Your task to perform on an android device: turn off data saver in the chrome app Image 0: 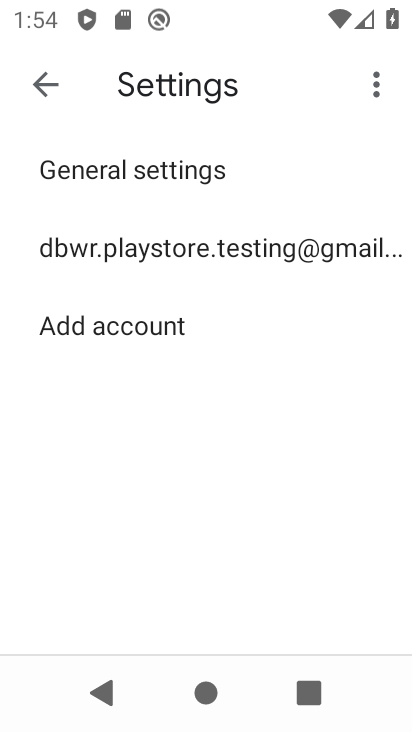
Step 0: press home button
Your task to perform on an android device: turn off data saver in the chrome app Image 1: 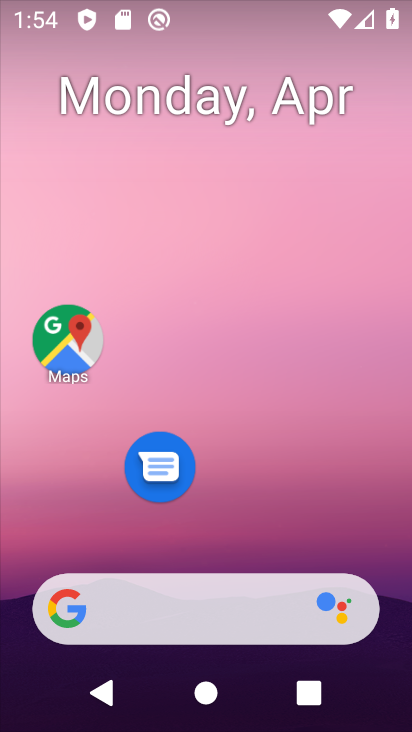
Step 1: drag from (289, 545) to (293, 13)
Your task to perform on an android device: turn off data saver in the chrome app Image 2: 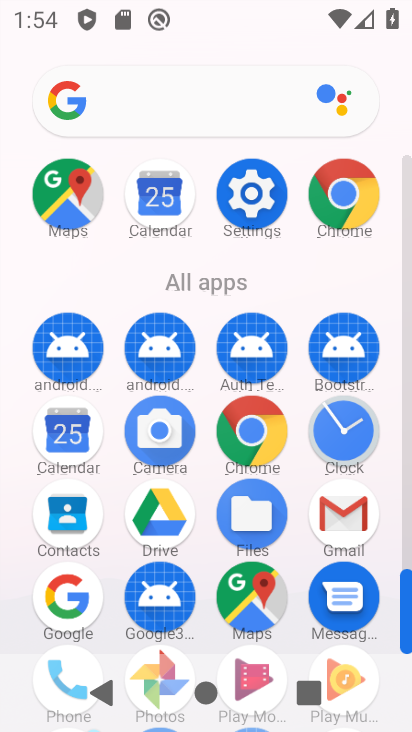
Step 2: click (347, 195)
Your task to perform on an android device: turn off data saver in the chrome app Image 3: 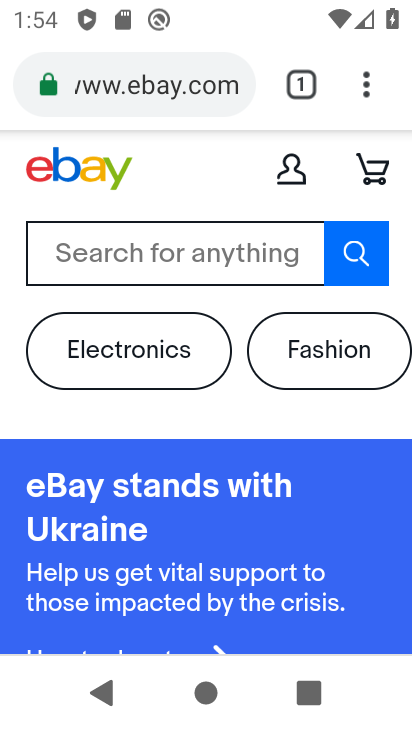
Step 3: click (377, 78)
Your task to perform on an android device: turn off data saver in the chrome app Image 4: 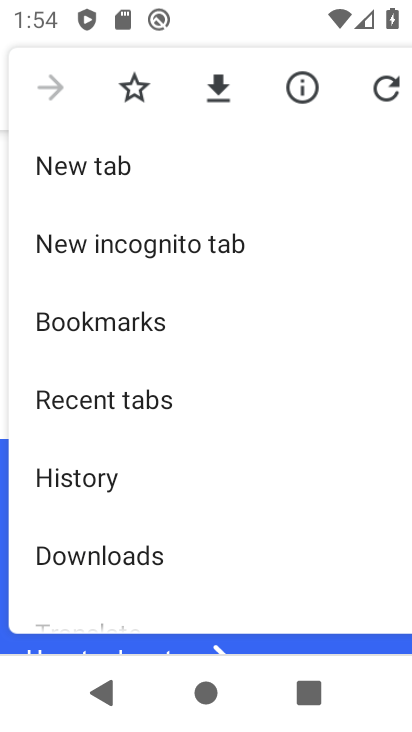
Step 4: drag from (167, 528) to (160, 243)
Your task to perform on an android device: turn off data saver in the chrome app Image 5: 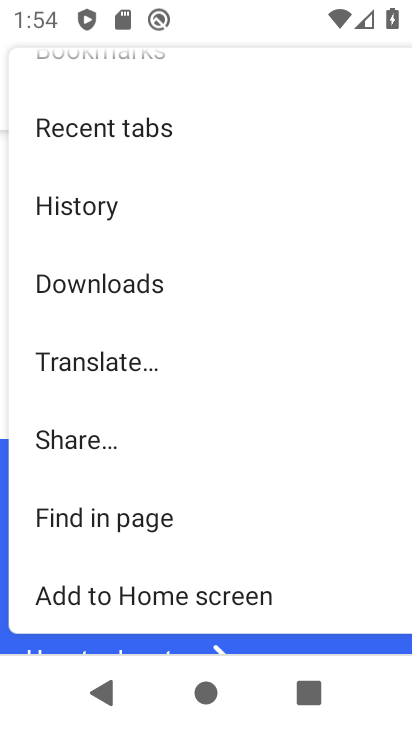
Step 5: drag from (175, 479) to (172, 262)
Your task to perform on an android device: turn off data saver in the chrome app Image 6: 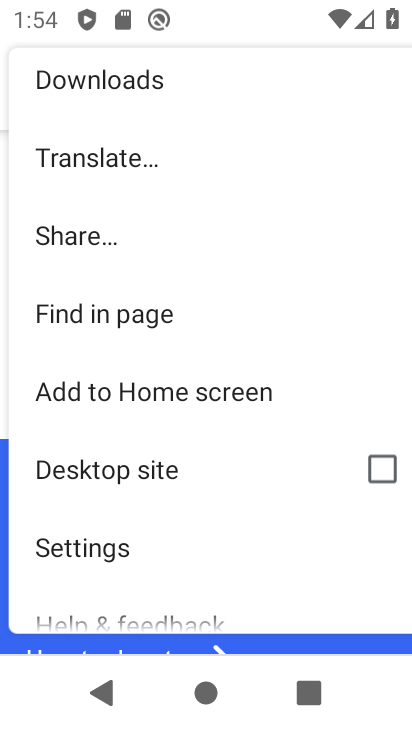
Step 6: click (204, 543)
Your task to perform on an android device: turn off data saver in the chrome app Image 7: 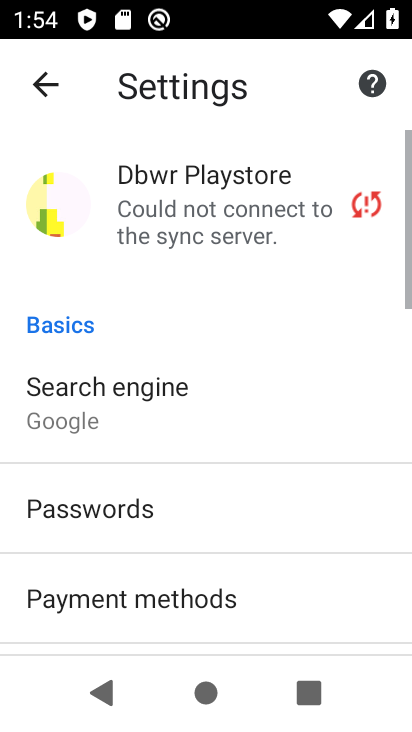
Step 7: drag from (199, 573) to (219, 276)
Your task to perform on an android device: turn off data saver in the chrome app Image 8: 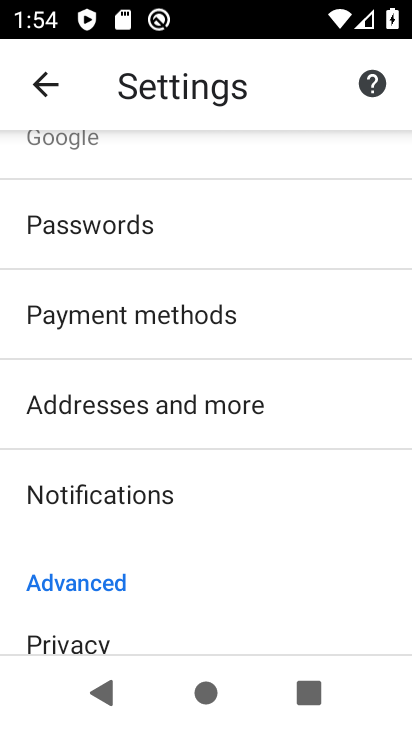
Step 8: drag from (177, 539) to (198, 232)
Your task to perform on an android device: turn off data saver in the chrome app Image 9: 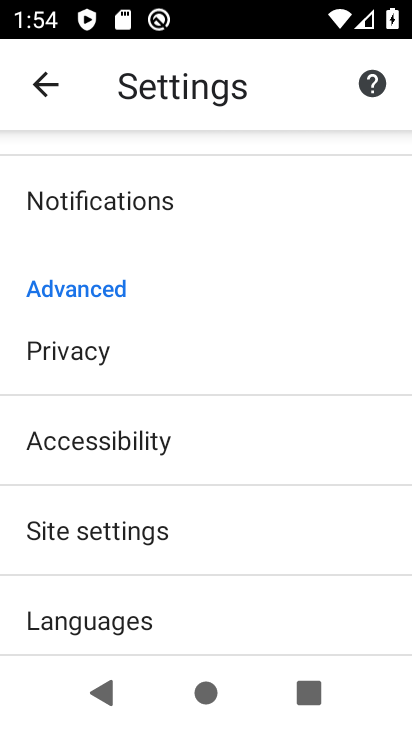
Step 9: drag from (185, 553) to (223, 285)
Your task to perform on an android device: turn off data saver in the chrome app Image 10: 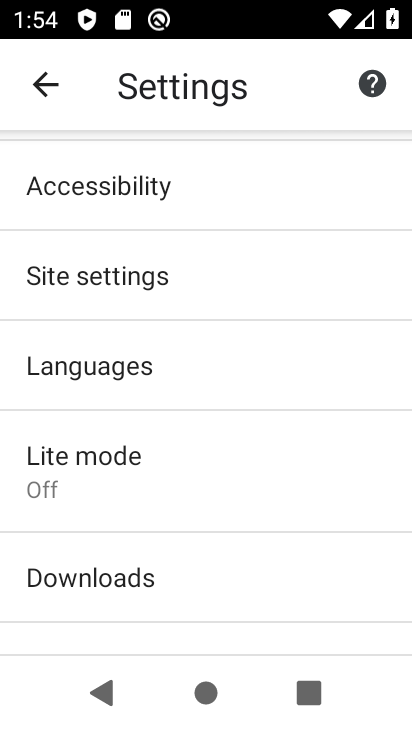
Step 10: click (161, 471)
Your task to perform on an android device: turn off data saver in the chrome app Image 11: 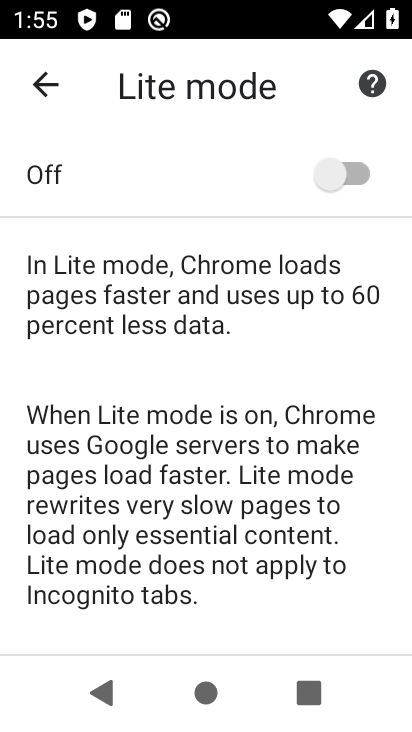
Step 11: task complete